Your task to perform on an android device: turn pop-ups on in chrome Image 0: 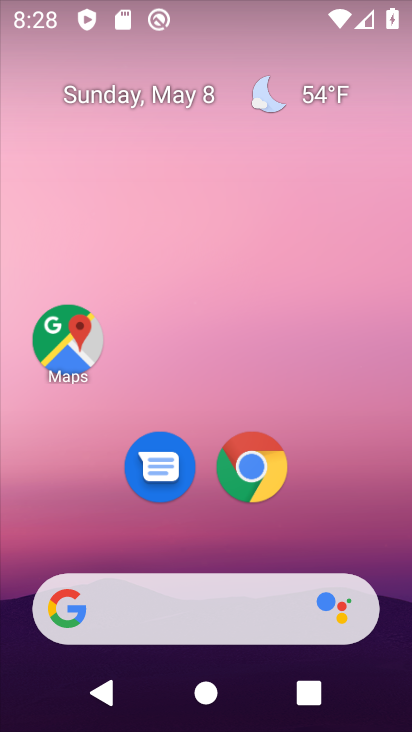
Step 0: click (251, 470)
Your task to perform on an android device: turn pop-ups on in chrome Image 1: 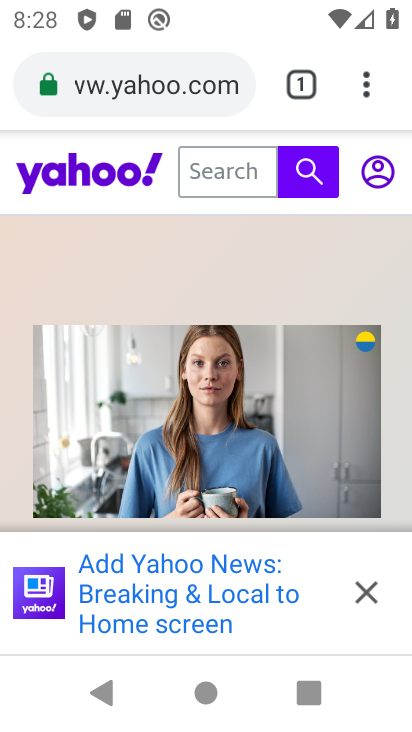
Step 1: click (361, 86)
Your task to perform on an android device: turn pop-ups on in chrome Image 2: 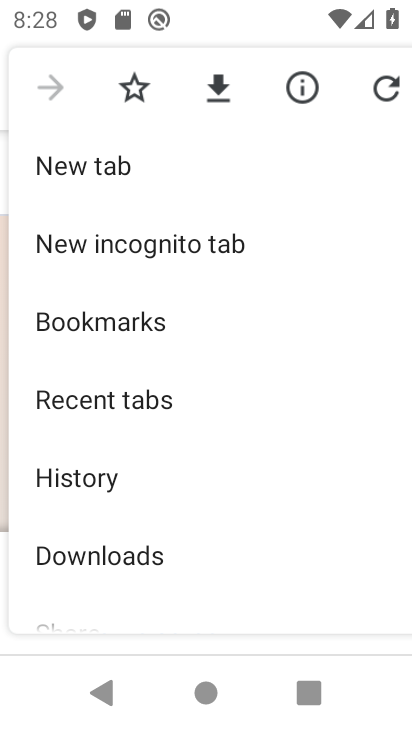
Step 2: drag from (190, 552) to (232, 273)
Your task to perform on an android device: turn pop-ups on in chrome Image 3: 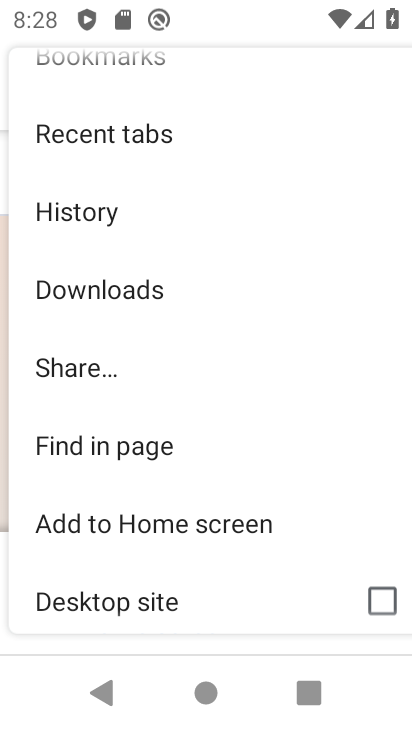
Step 3: drag from (289, 521) to (263, 218)
Your task to perform on an android device: turn pop-ups on in chrome Image 4: 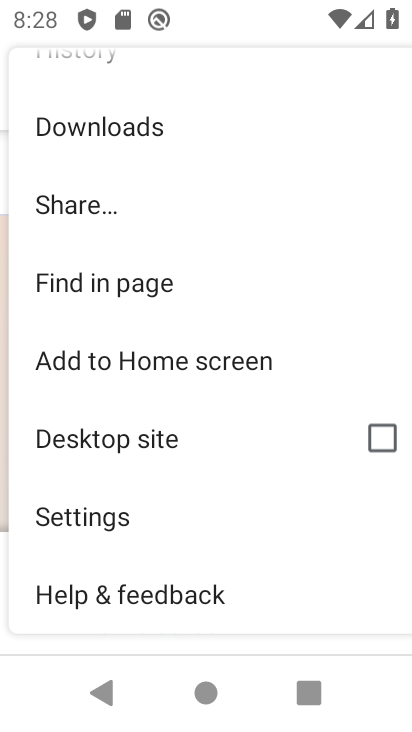
Step 4: click (58, 524)
Your task to perform on an android device: turn pop-ups on in chrome Image 5: 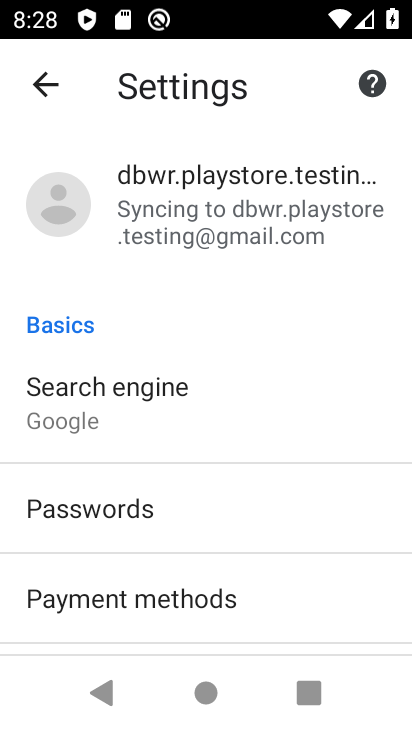
Step 5: drag from (287, 577) to (285, 229)
Your task to perform on an android device: turn pop-ups on in chrome Image 6: 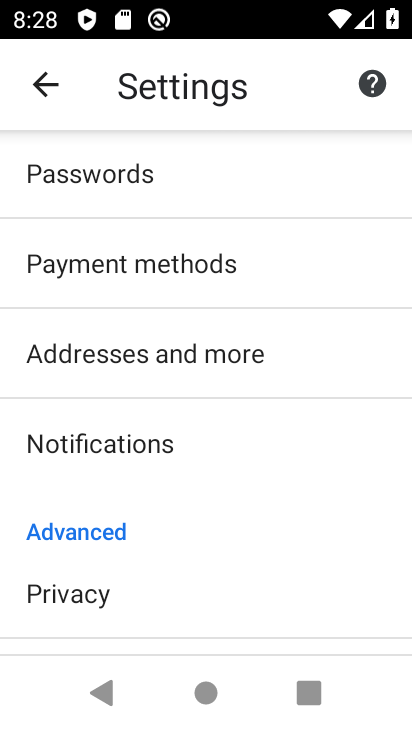
Step 6: drag from (227, 552) to (280, 213)
Your task to perform on an android device: turn pop-ups on in chrome Image 7: 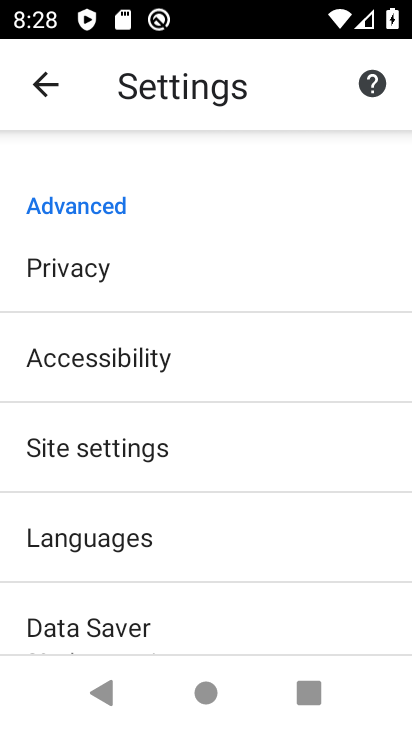
Step 7: click (54, 457)
Your task to perform on an android device: turn pop-ups on in chrome Image 8: 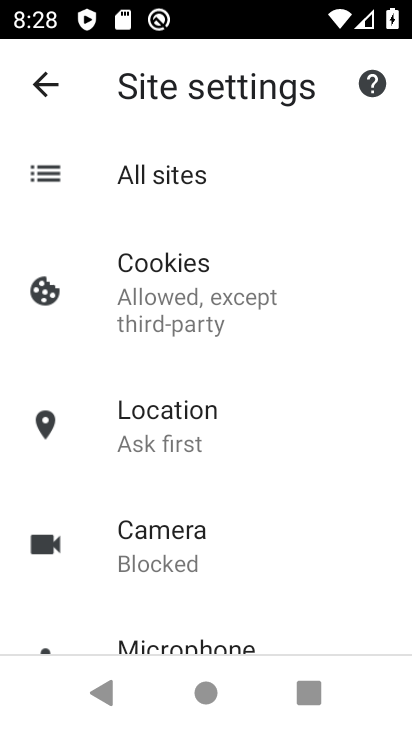
Step 8: drag from (285, 567) to (270, 146)
Your task to perform on an android device: turn pop-ups on in chrome Image 9: 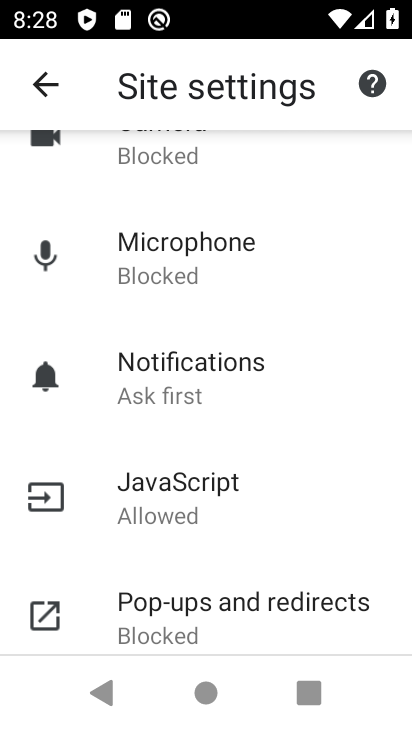
Step 9: drag from (283, 555) to (300, 200)
Your task to perform on an android device: turn pop-ups on in chrome Image 10: 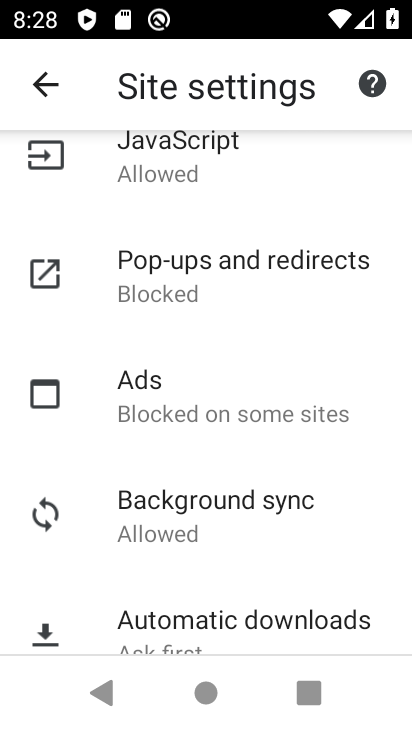
Step 10: click (146, 288)
Your task to perform on an android device: turn pop-ups on in chrome Image 11: 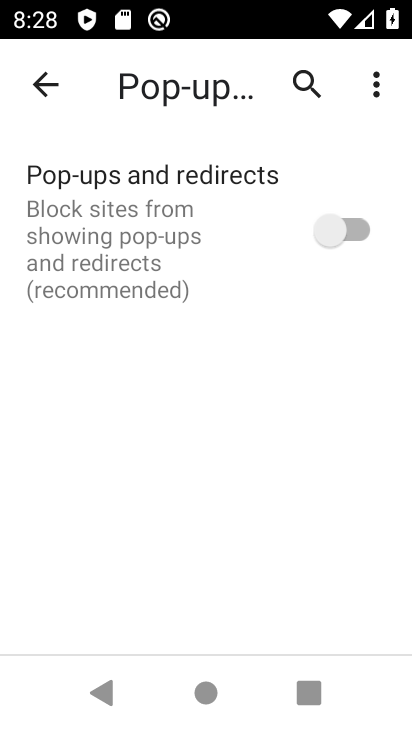
Step 11: click (353, 234)
Your task to perform on an android device: turn pop-ups on in chrome Image 12: 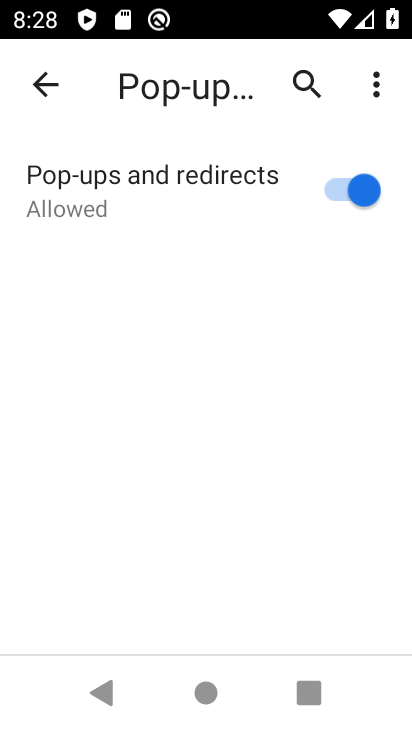
Step 12: task complete